Your task to perform on an android device: Open sound settings Image 0: 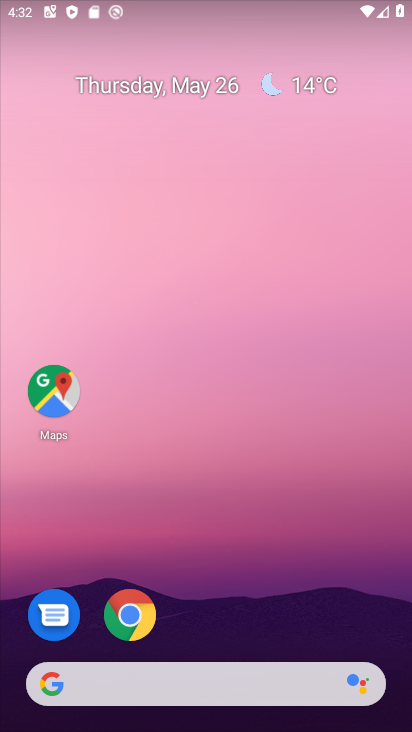
Step 0: drag from (285, 605) to (199, 101)
Your task to perform on an android device: Open sound settings Image 1: 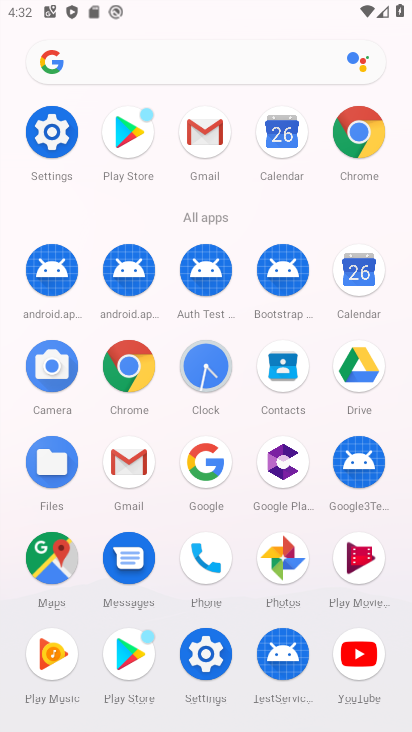
Step 1: click (45, 122)
Your task to perform on an android device: Open sound settings Image 2: 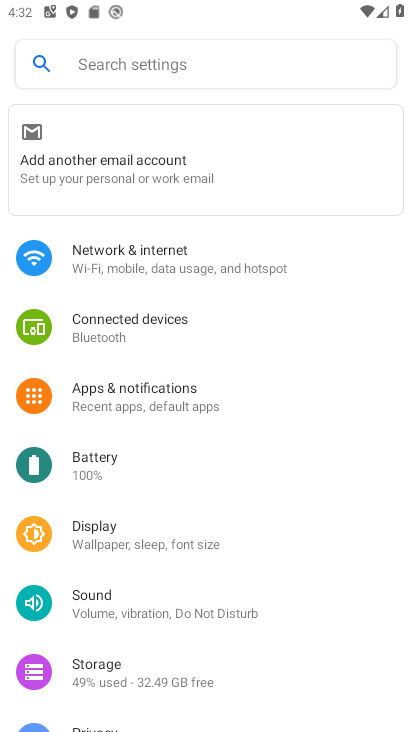
Step 2: drag from (202, 576) to (212, 199)
Your task to perform on an android device: Open sound settings Image 3: 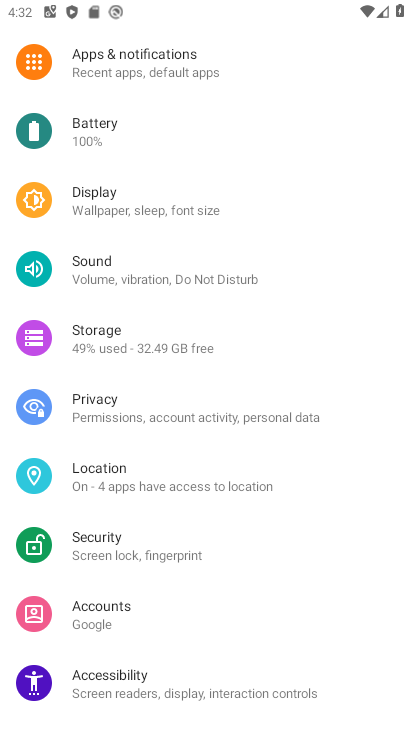
Step 3: drag from (192, 222) to (199, 362)
Your task to perform on an android device: Open sound settings Image 4: 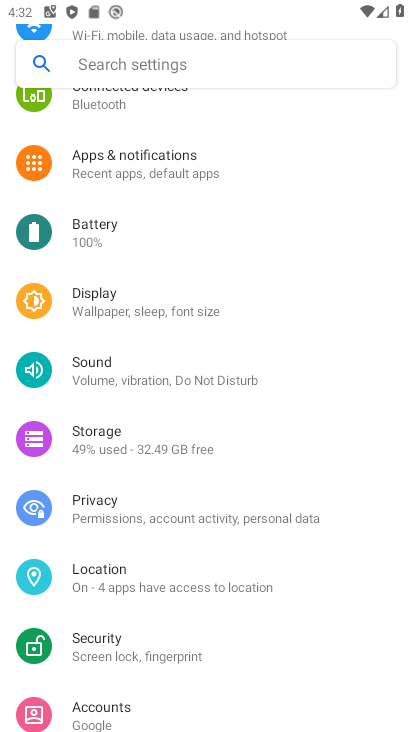
Step 4: click (152, 373)
Your task to perform on an android device: Open sound settings Image 5: 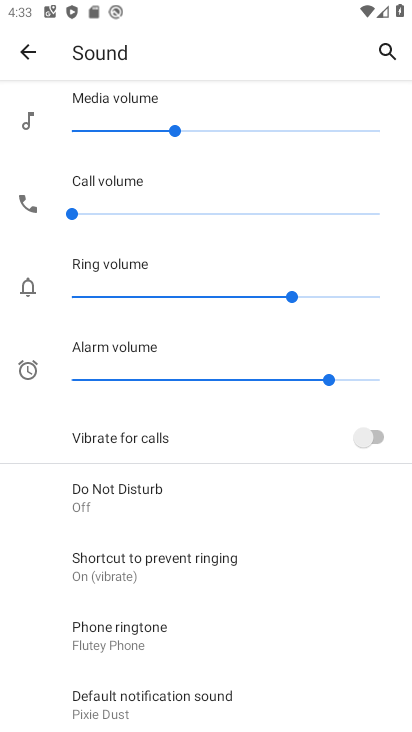
Step 5: task complete